Your task to perform on an android device: turn on improve location accuracy Image 0: 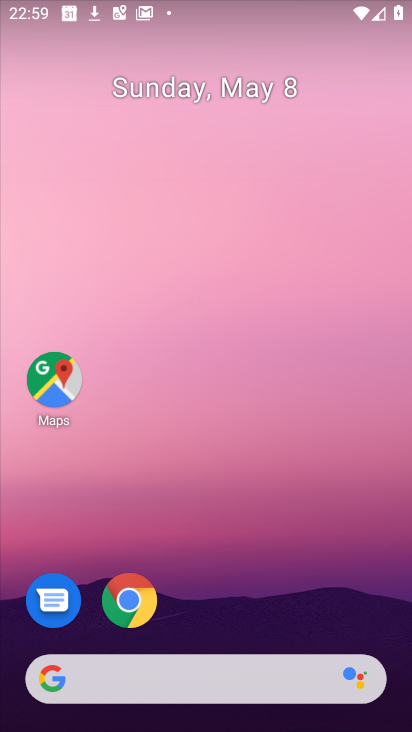
Step 0: drag from (226, 708) to (333, 265)
Your task to perform on an android device: turn on improve location accuracy Image 1: 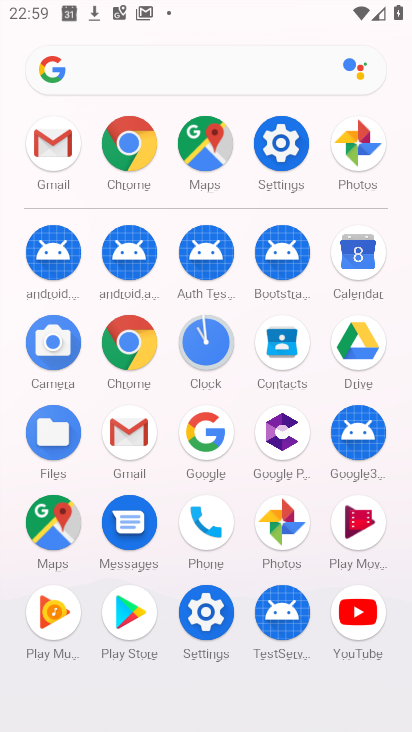
Step 1: click (281, 155)
Your task to perform on an android device: turn on improve location accuracy Image 2: 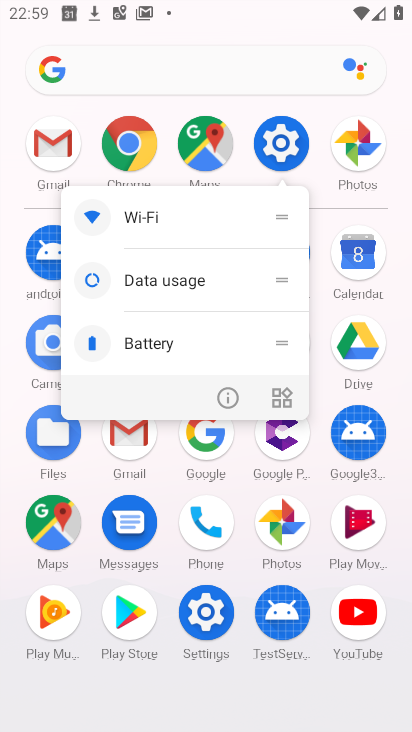
Step 2: click (272, 152)
Your task to perform on an android device: turn on improve location accuracy Image 3: 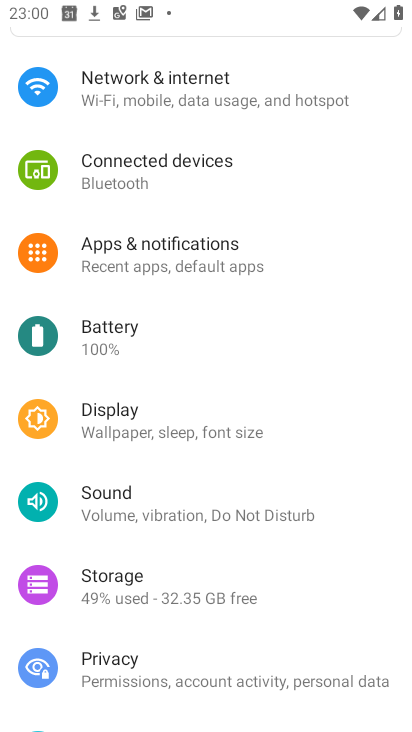
Step 3: drag from (256, 153) to (102, 614)
Your task to perform on an android device: turn on improve location accuracy Image 4: 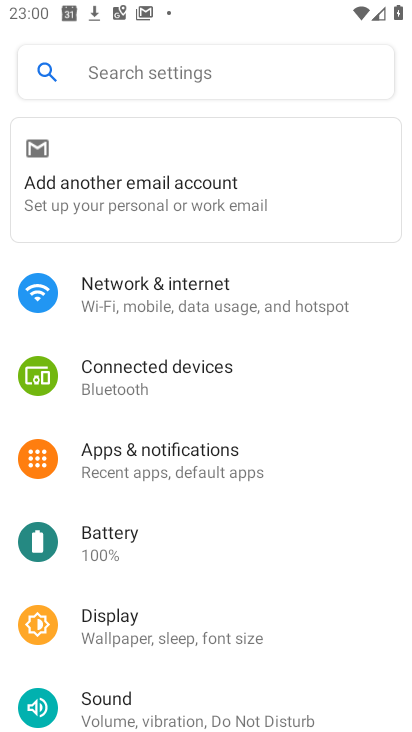
Step 4: click (165, 81)
Your task to perform on an android device: turn on improve location accuracy Image 5: 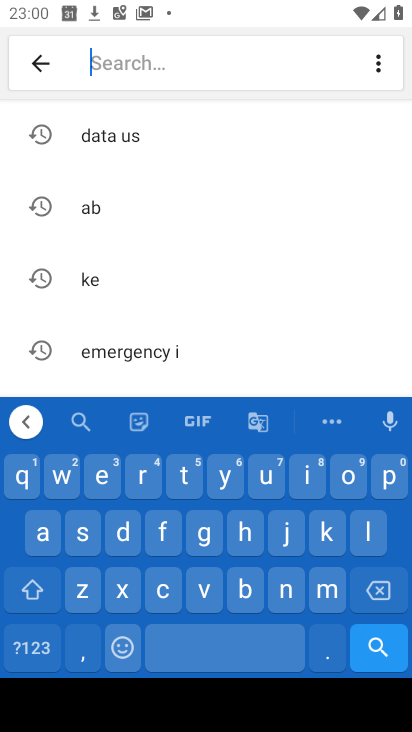
Step 5: click (366, 531)
Your task to perform on an android device: turn on improve location accuracy Image 6: 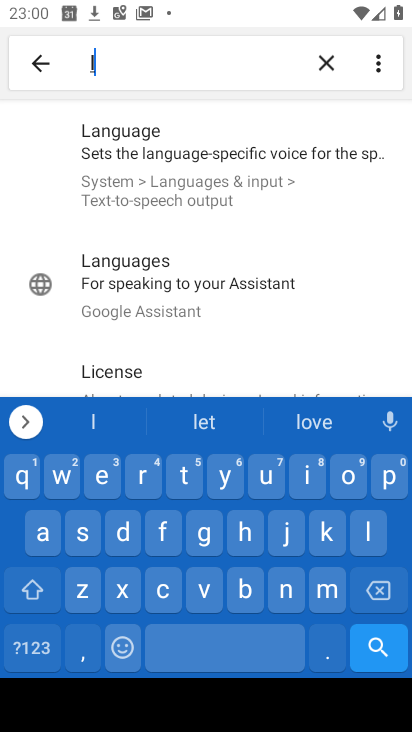
Step 6: click (343, 479)
Your task to perform on an android device: turn on improve location accuracy Image 7: 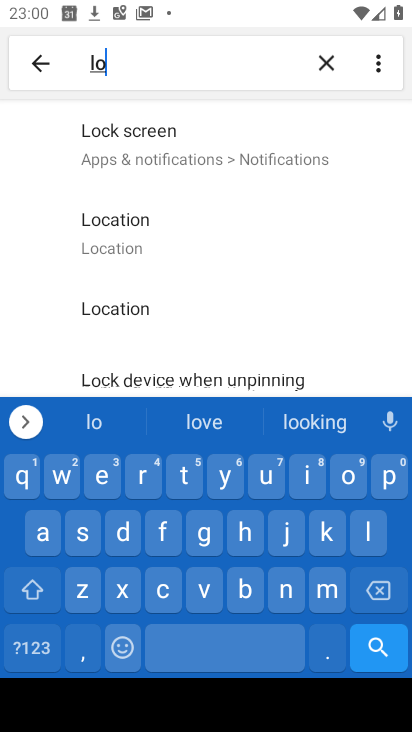
Step 7: click (112, 217)
Your task to perform on an android device: turn on improve location accuracy Image 8: 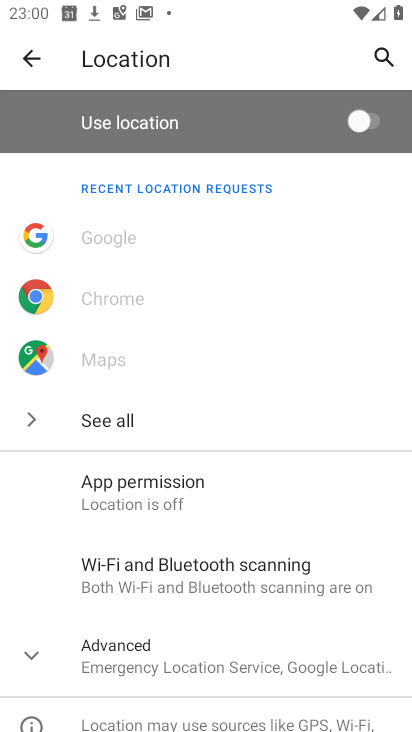
Step 8: click (93, 669)
Your task to perform on an android device: turn on improve location accuracy Image 9: 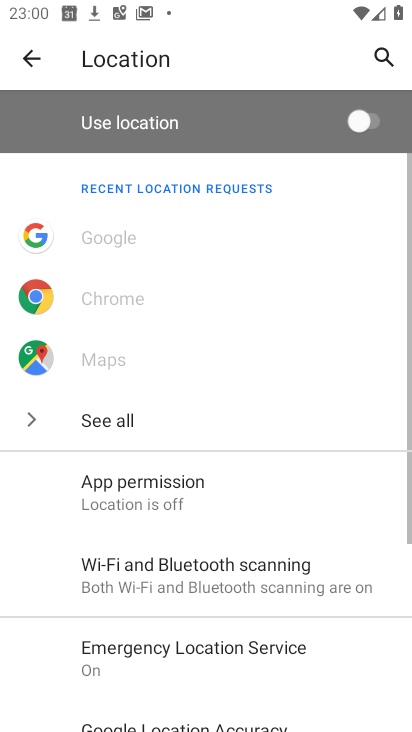
Step 9: drag from (98, 649) to (233, 391)
Your task to perform on an android device: turn on improve location accuracy Image 10: 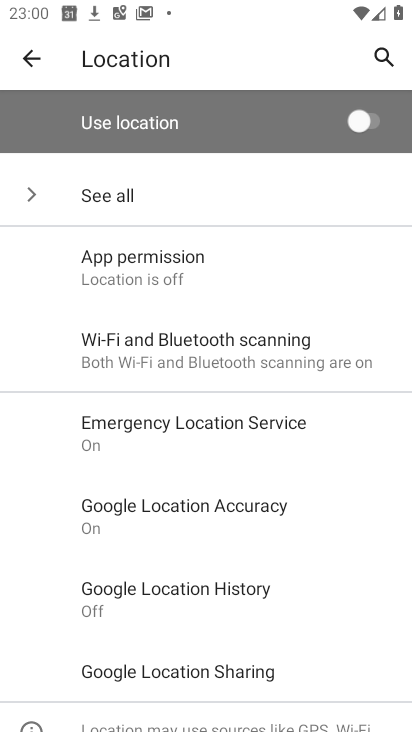
Step 10: click (224, 505)
Your task to perform on an android device: turn on improve location accuracy Image 11: 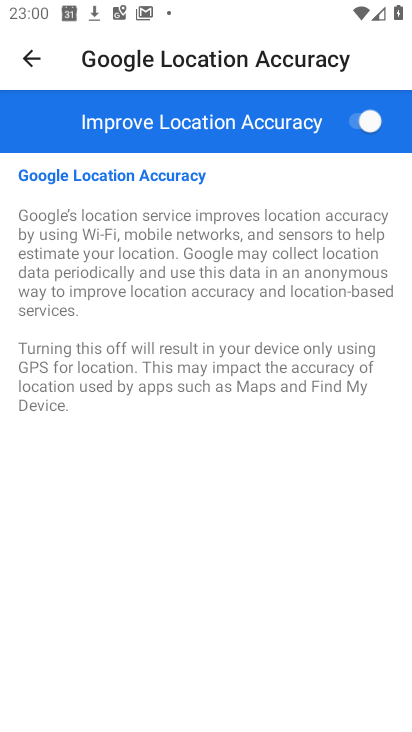
Step 11: click (350, 123)
Your task to perform on an android device: turn on improve location accuracy Image 12: 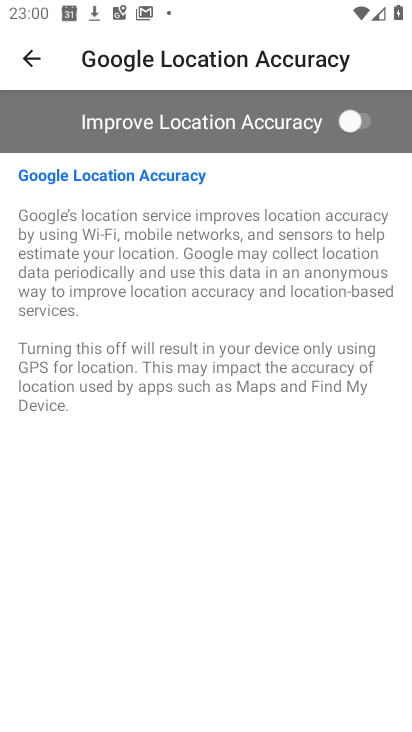
Step 12: click (349, 123)
Your task to perform on an android device: turn on improve location accuracy Image 13: 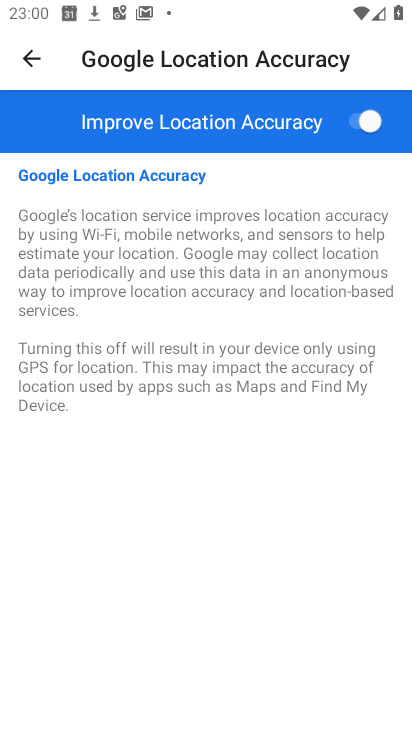
Step 13: task complete